Your task to perform on an android device: find snoozed emails in the gmail app Image 0: 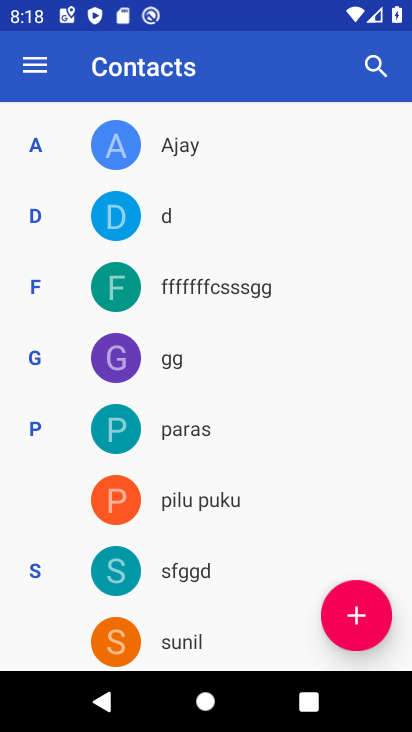
Step 0: press home button
Your task to perform on an android device: find snoozed emails in the gmail app Image 1: 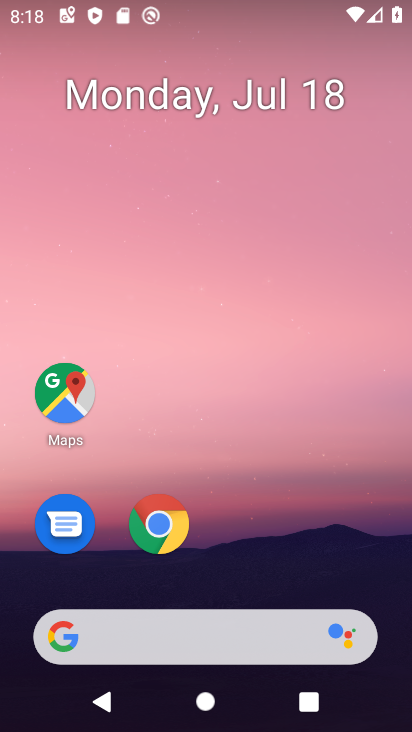
Step 1: drag from (266, 517) to (270, 68)
Your task to perform on an android device: find snoozed emails in the gmail app Image 2: 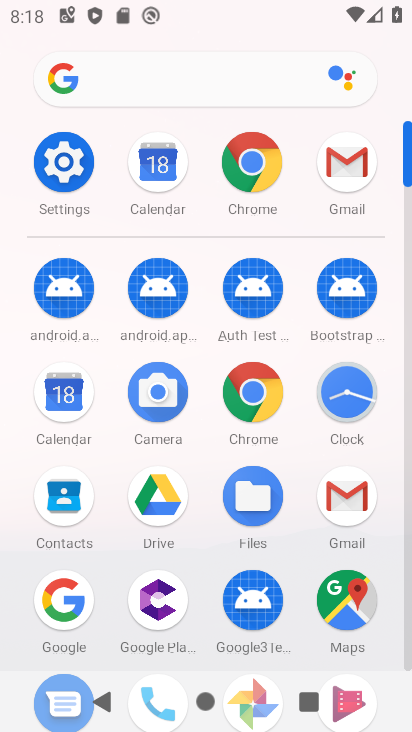
Step 2: click (347, 170)
Your task to perform on an android device: find snoozed emails in the gmail app Image 3: 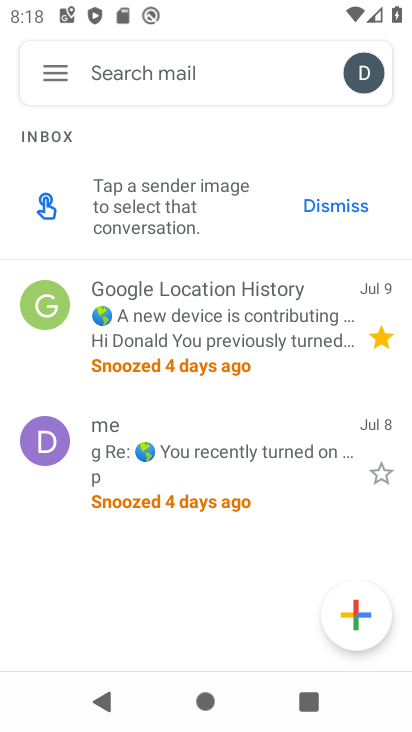
Step 3: click (50, 71)
Your task to perform on an android device: find snoozed emails in the gmail app Image 4: 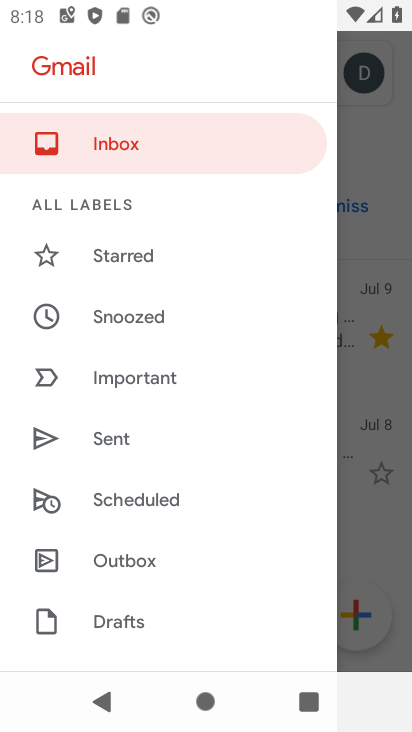
Step 4: click (128, 314)
Your task to perform on an android device: find snoozed emails in the gmail app Image 5: 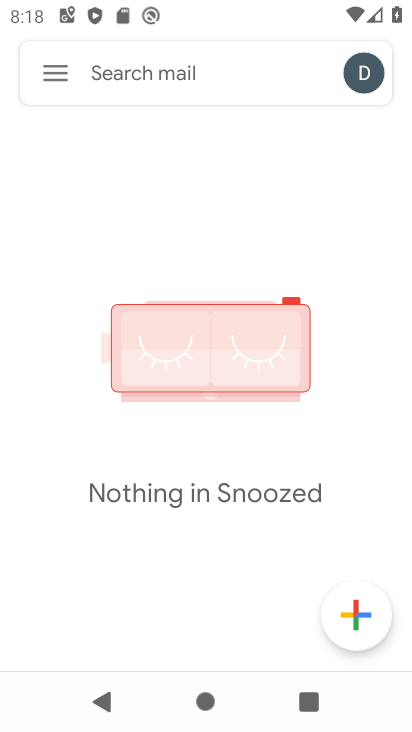
Step 5: click (58, 68)
Your task to perform on an android device: find snoozed emails in the gmail app Image 6: 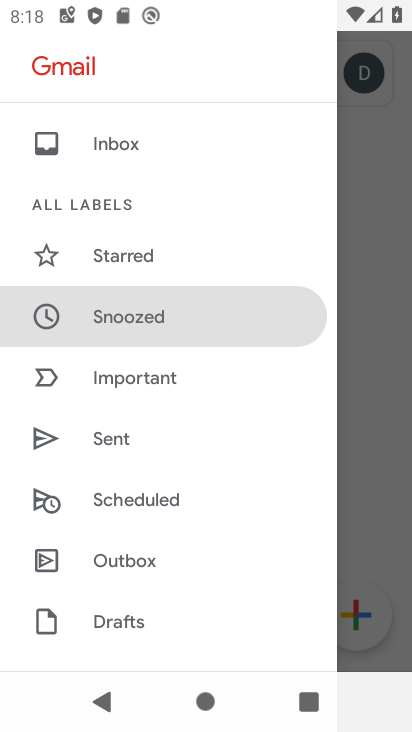
Step 6: click (106, 142)
Your task to perform on an android device: find snoozed emails in the gmail app Image 7: 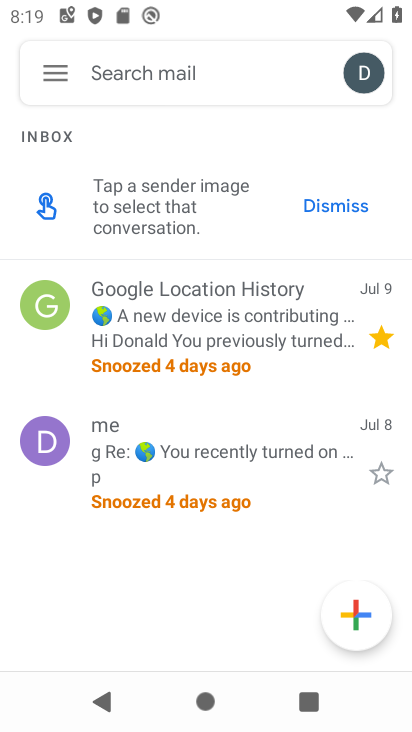
Step 7: click (237, 327)
Your task to perform on an android device: find snoozed emails in the gmail app Image 8: 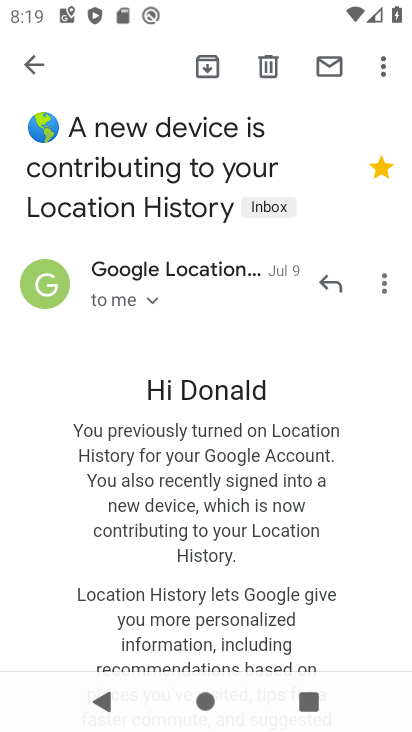
Step 8: task complete